Your task to perform on an android device: turn on notifications settings in the gmail app Image 0: 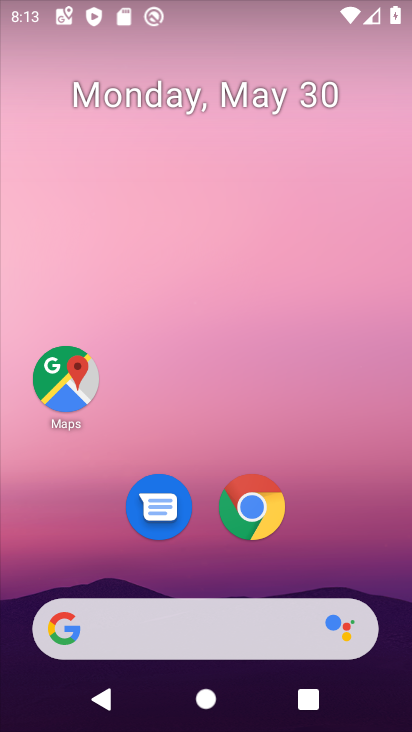
Step 0: drag from (209, 586) to (244, 399)
Your task to perform on an android device: turn on notifications settings in the gmail app Image 1: 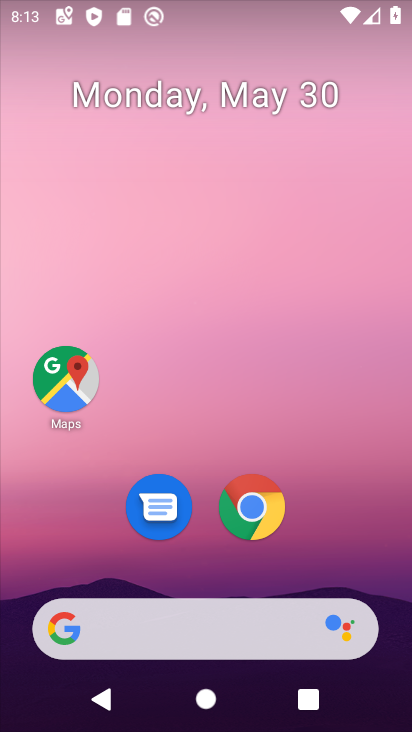
Step 1: drag from (207, 562) to (213, 364)
Your task to perform on an android device: turn on notifications settings in the gmail app Image 2: 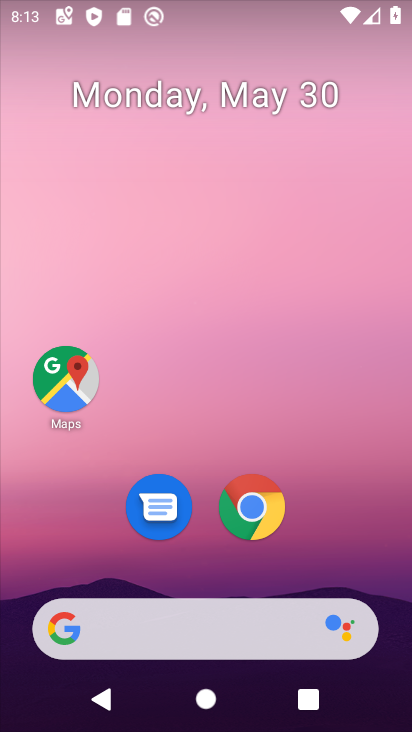
Step 2: drag from (209, 572) to (229, 101)
Your task to perform on an android device: turn on notifications settings in the gmail app Image 3: 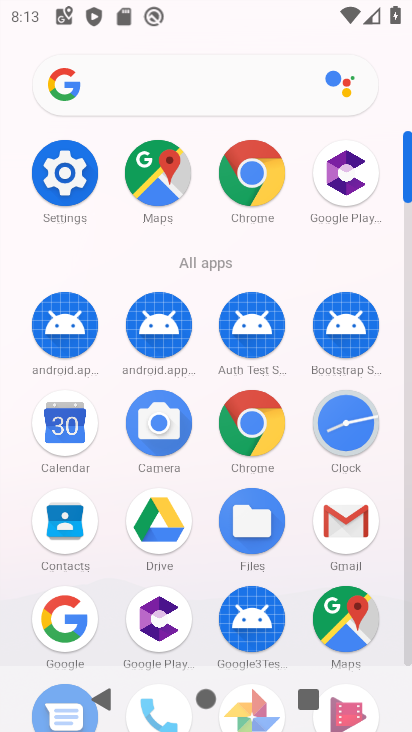
Step 3: click (341, 529)
Your task to perform on an android device: turn on notifications settings in the gmail app Image 4: 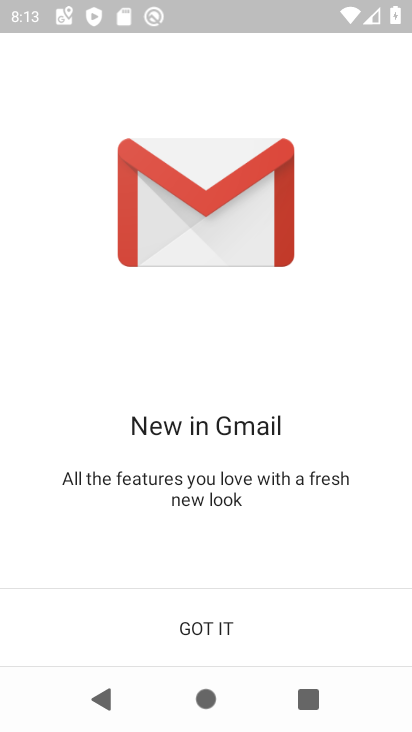
Step 4: click (235, 614)
Your task to perform on an android device: turn on notifications settings in the gmail app Image 5: 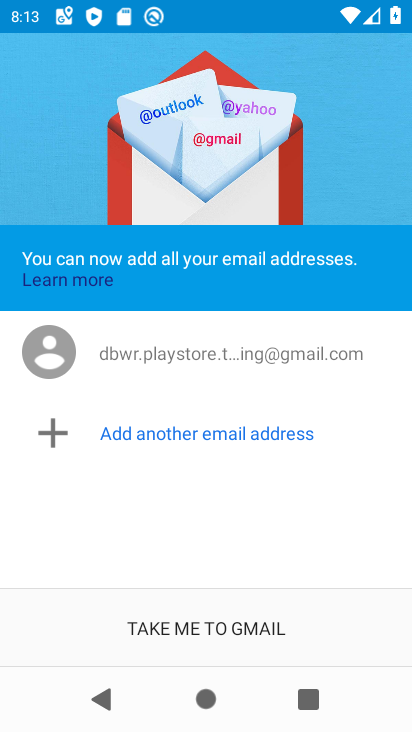
Step 5: click (234, 628)
Your task to perform on an android device: turn on notifications settings in the gmail app Image 6: 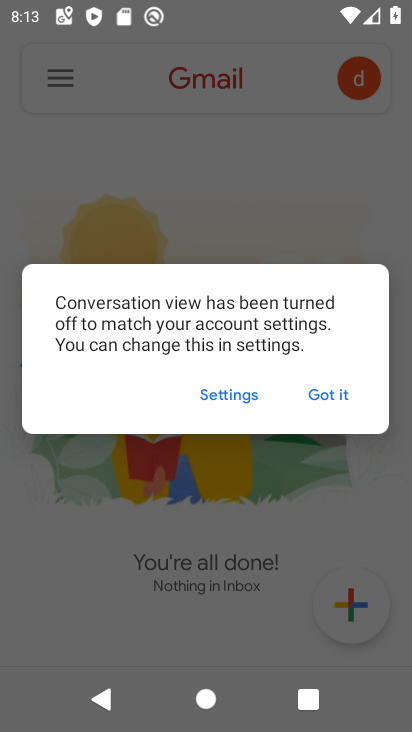
Step 6: click (319, 382)
Your task to perform on an android device: turn on notifications settings in the gmail app Image 7: 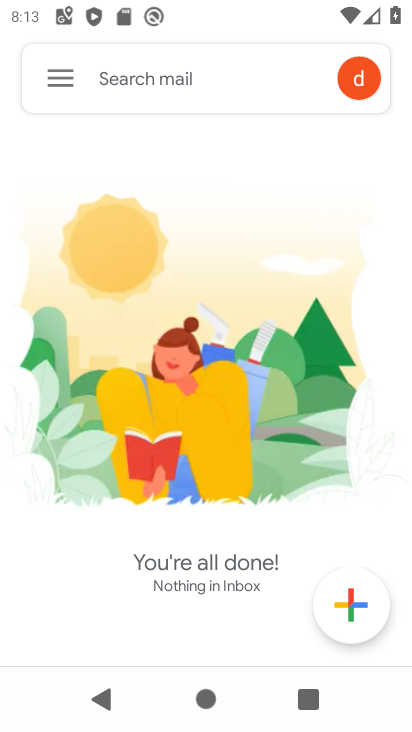
Step 7: click (55, 48)
Your task to perform on an android device: turn on notifications settings in the gmail app Image 8: 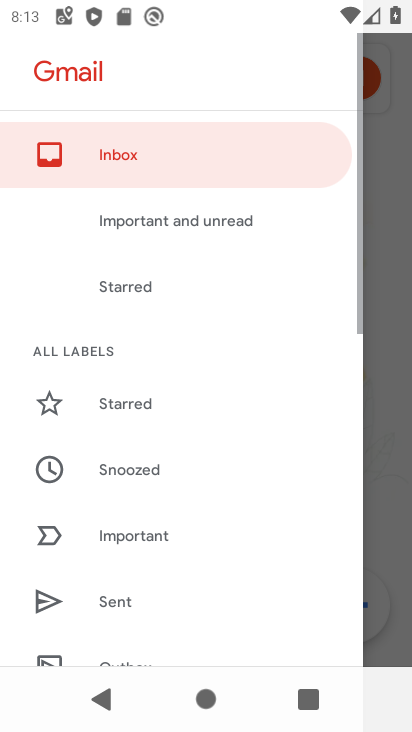
Step 8: drag from (87, 560) to (126, 255)
Your task to perform on an android device: turn on notifications settings in the gmail app Image 9: 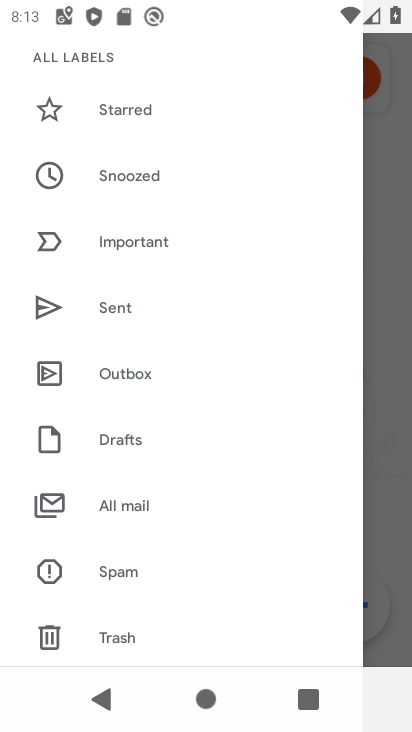
Step 9: drag from (109, 596) to (135, 445)
Your task to perform on an android device: turn on notifications settings in the gmail app Image 10: 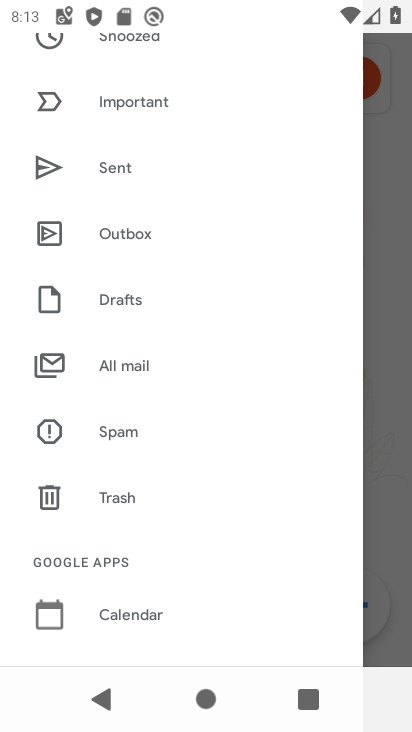
Step 10: drag from (146, 553) to (177, 10)
Your task to perform on an android device: turn on notifications settings in the gmail app Image 11: 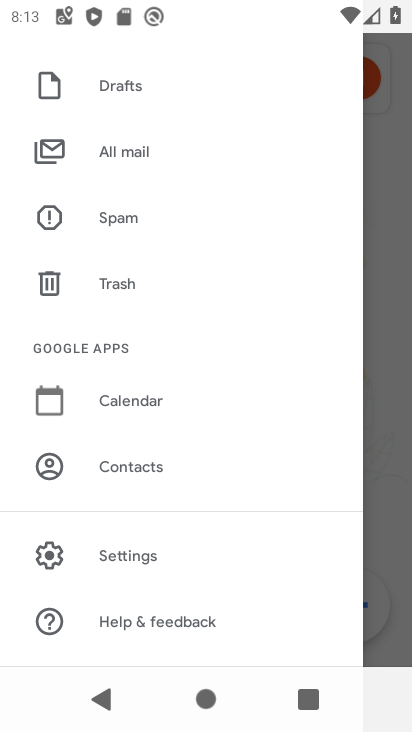
Step 11: click (123, 560)
Your task to perform on an android device: turn on notifications settings in the gmail app Image 12: 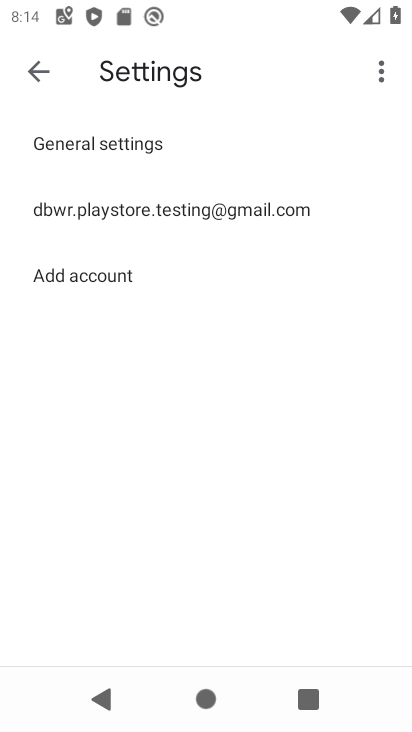
Step 12: click (147, 156)
Your task to perform on an android device: turn on notifications settings in the gmail app Image 13: 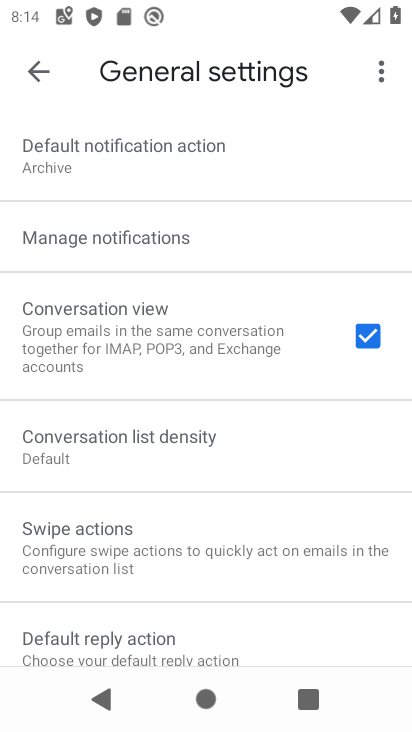
Step 13: click (128, 252)
Your task to perform on an android device: turn on notifications settings in the gmail app Image 14: 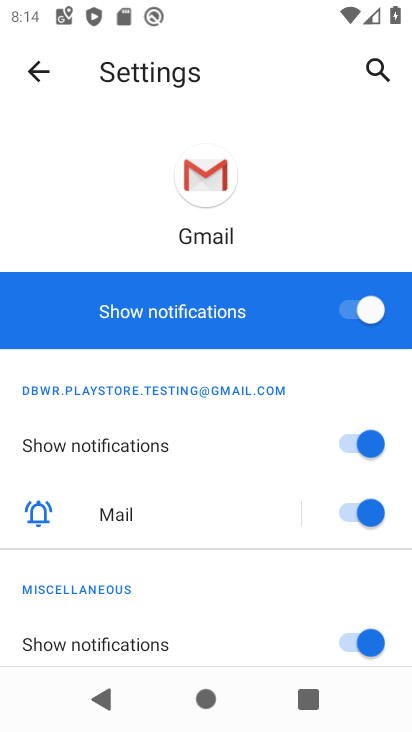
Step 14: task complete